Your task to perform on an android device: open app "Calculator" Image 0: 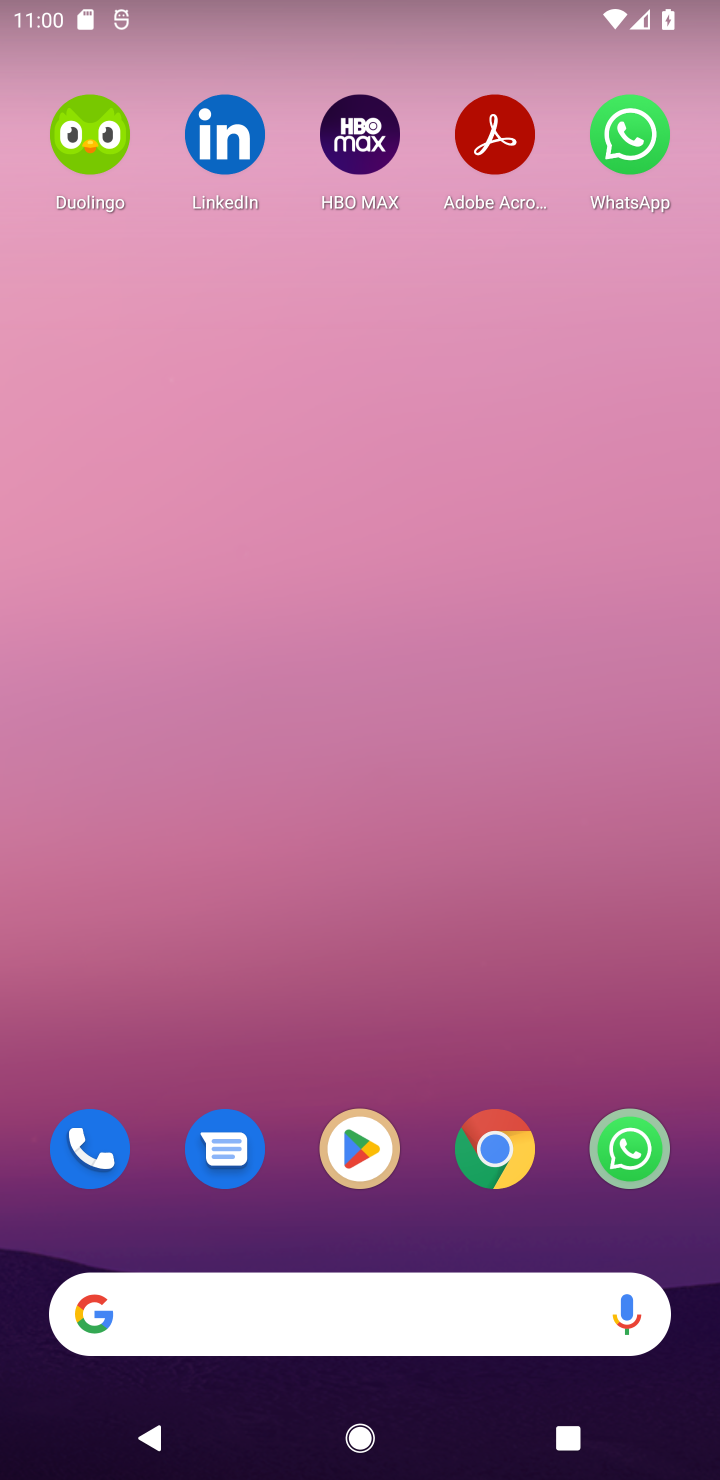
Step 0: drag from (320, 1230) to (219, 115)
Your task to perform on an android device: open app "Calculator" Image 1: 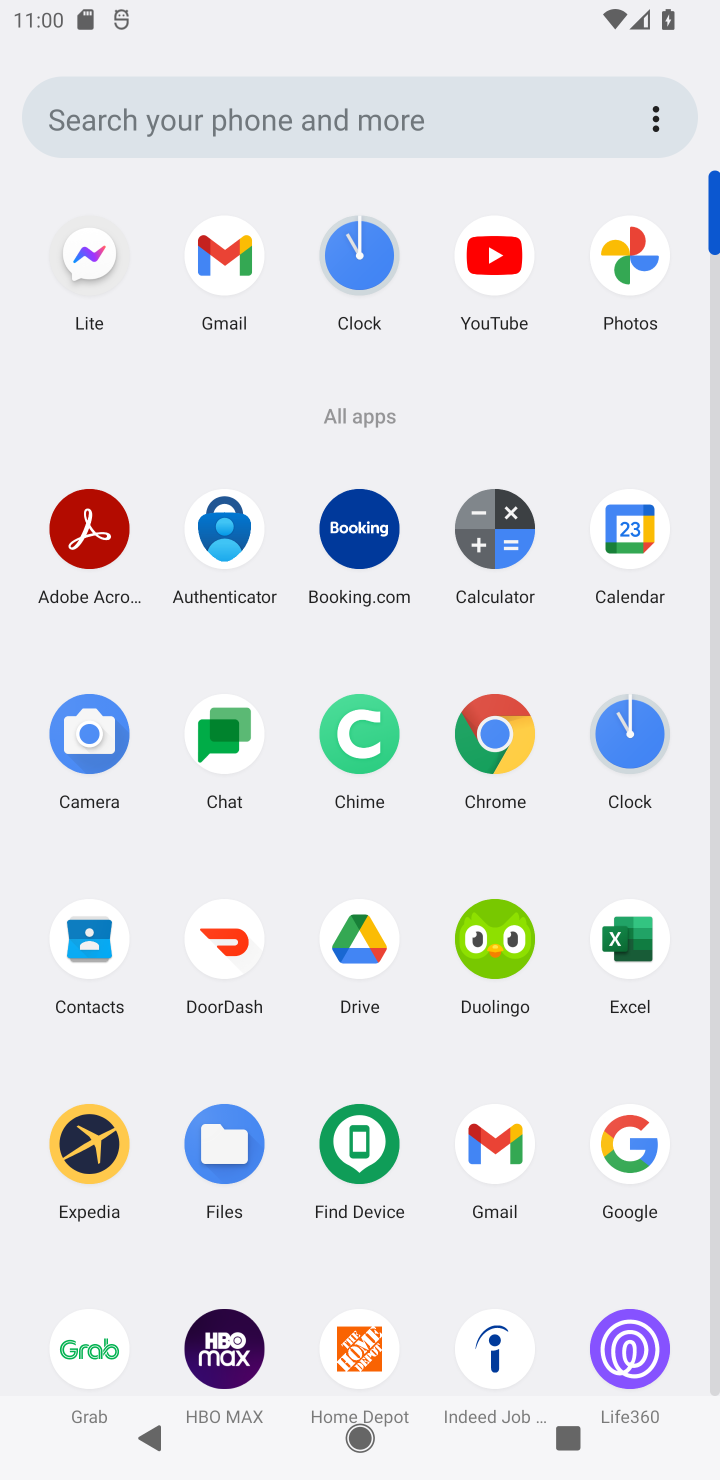
Step 1: task complete